Your task to perform on an android device: open app "Microsoft Outlook" (install if not already installed) and enter user name: "brand@gmail.com" and password: "persuasiveness" Image 0: 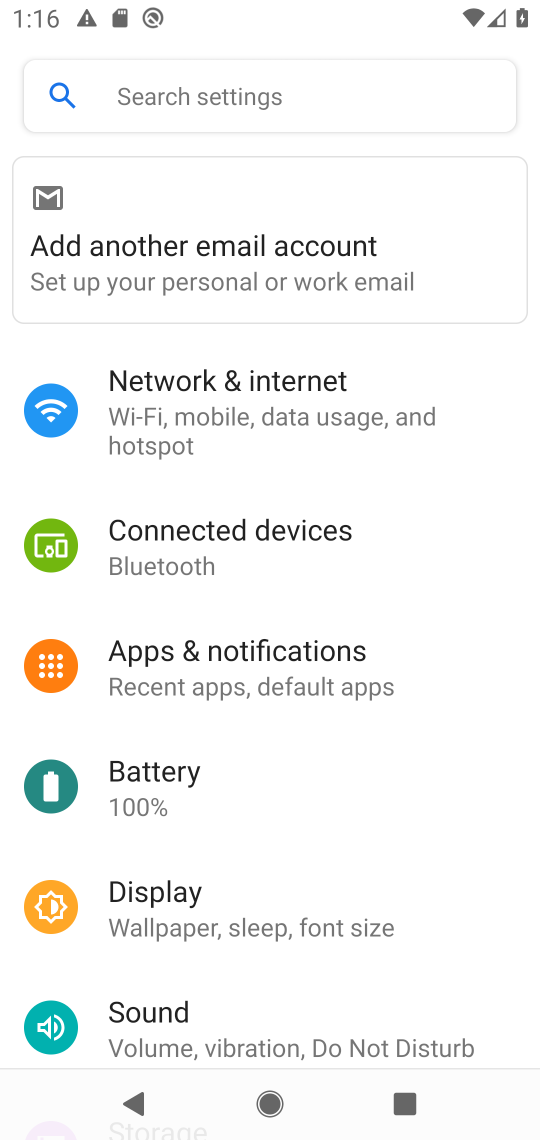
Step 0: press back button
Your task to perform on an android device: open app "Microsoft Outlook" (install if not already installed) and enter user name: "brand@gmail.com" and password: "persuasiveness" Image 1: 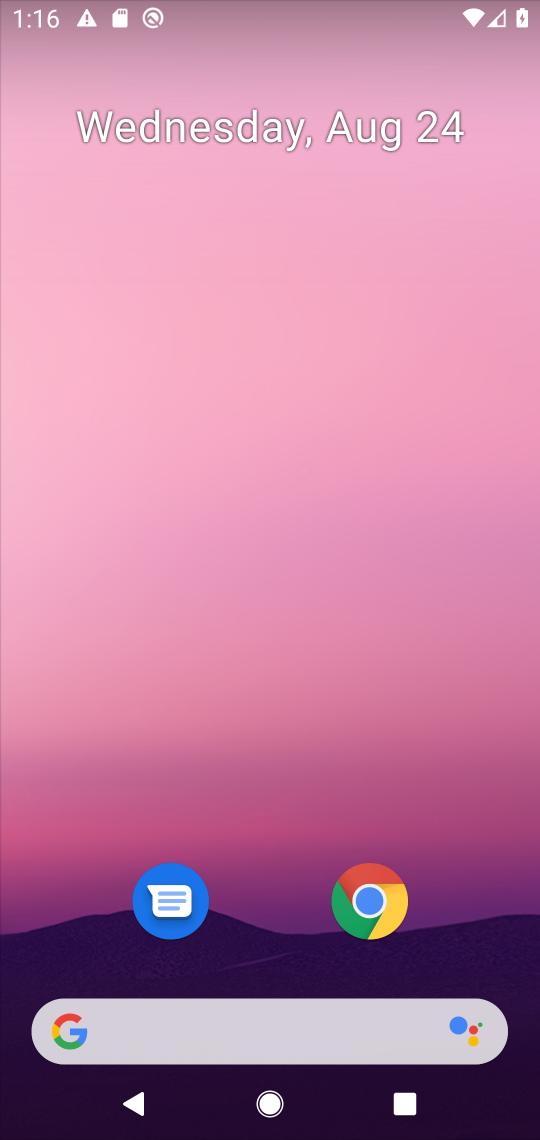
Step 1: drag from (256, 832) to (297, 57)
Your task to perform on an android device: open app "Microsoft Outlook" (install if not already installed) and enter user name: "brand@gmail.com" and password: "persuasiveness" Image 2: 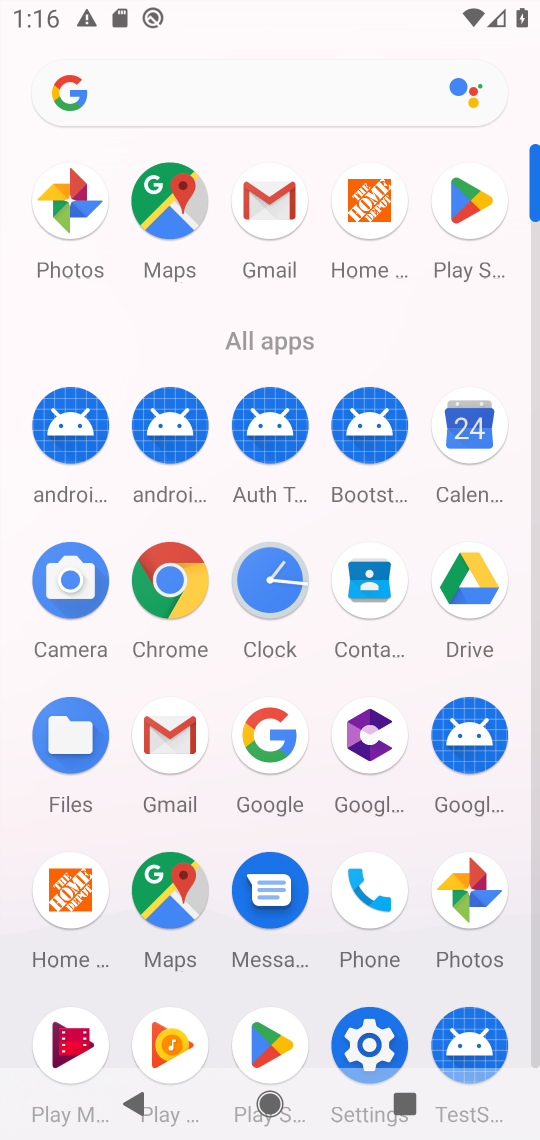
Step 2: click (465, 194)
Your task to perform on an android device: open app "Microsoft Outlook" (install if not already installed) and enter user name: "brand@gmail.com" and password: "persuasiveness" Image 3: 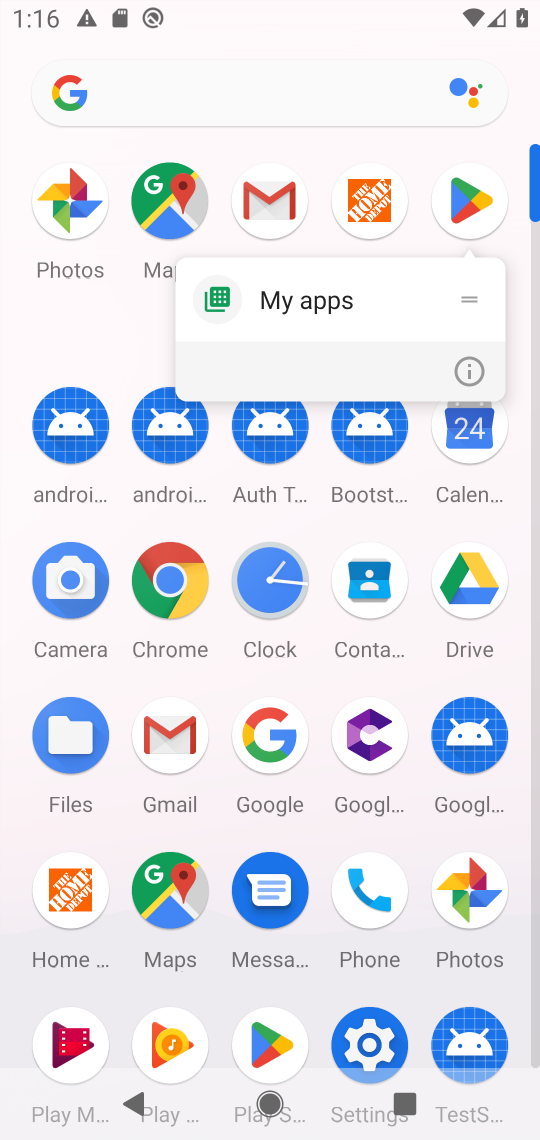
Step 3: click (450, 197)
Your task to perform on an android device: open app "Microsoft Outlook" (install if not already installed) and enter user name: "brand@gmail.com" and password: "persuasiveness" Image 4: 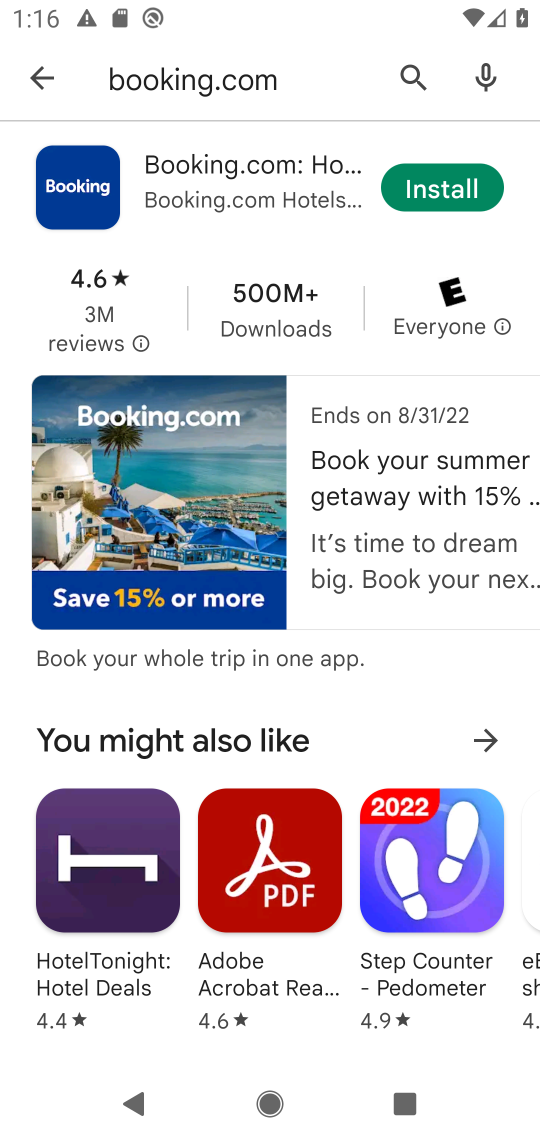
Step 4: click (411, 72)
Your task to perform on an android device: open app "Microsoft Outlook" (install if not already installed) and enter user name: "brand@gmail.com" and password: "persuasiveness" Image 5: 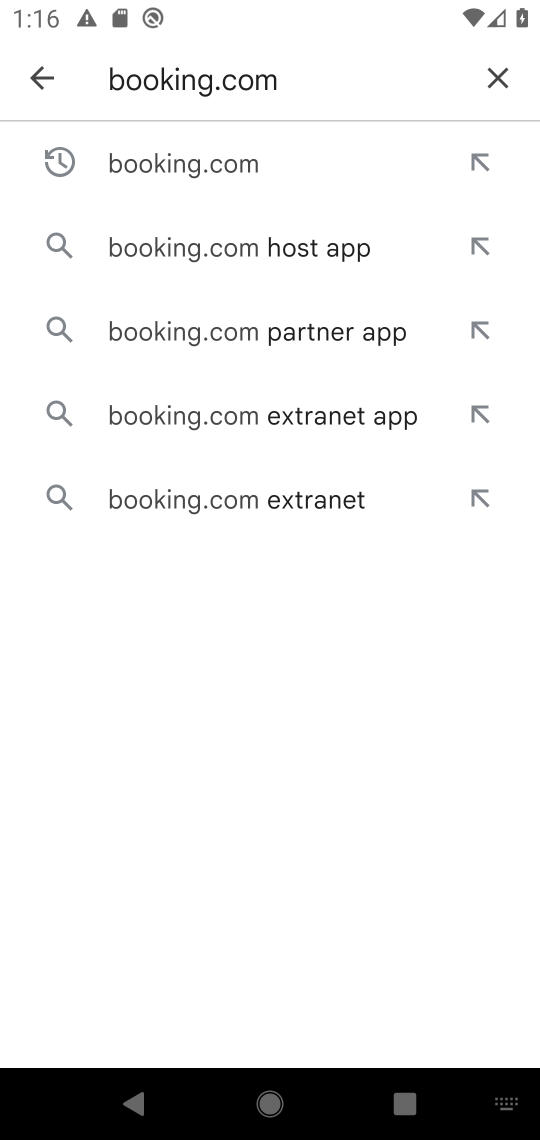
Step 5: click (495, 79)
Your task to perform on an android device: open app "Microsoft Outlook" (install if not already installed) and enter user name: "brand@gmail.com" and password: "persuasiveness" Image 6: 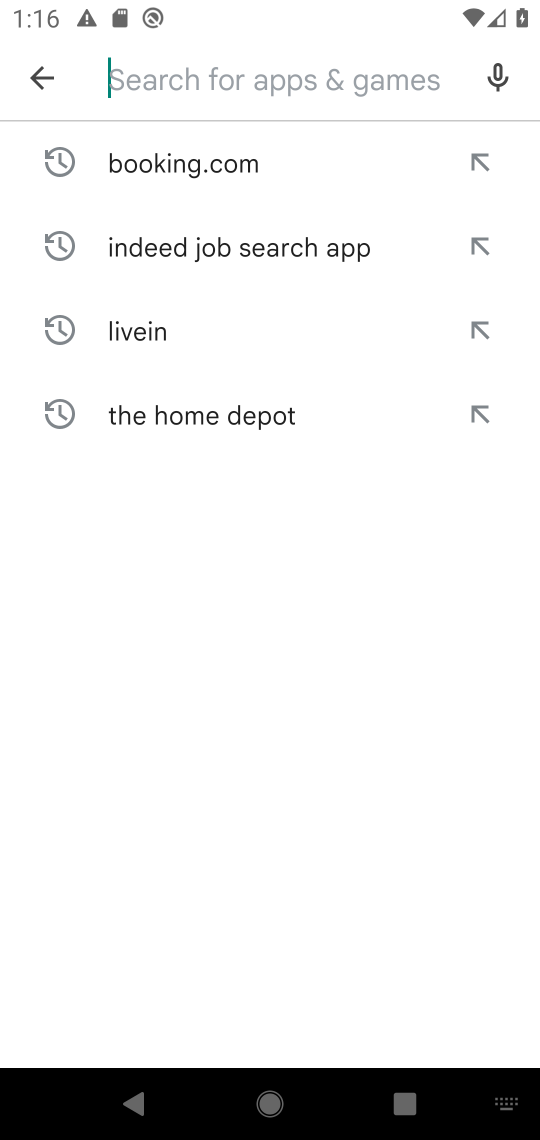
Step 6: click (200, 79)
Your task to perform on an android device: open app "Microsoft Outlook" (install if not already installed) and enter user name: "brand@gmail.com" and password: "persuasiveness" Image 7: 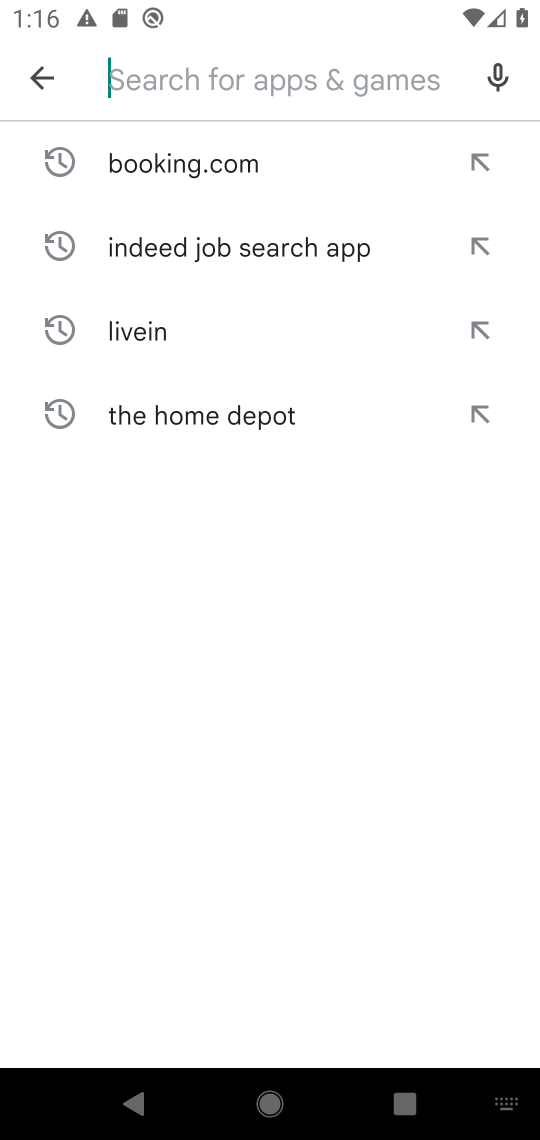
Step 7: type "Microsoft Outlook"
Your task to perform on an android device: open app "Microsoft Outlook" (install if not already installed) and enter user name: "brand@gmail.com" and password: "persuasiveness" Image 8: 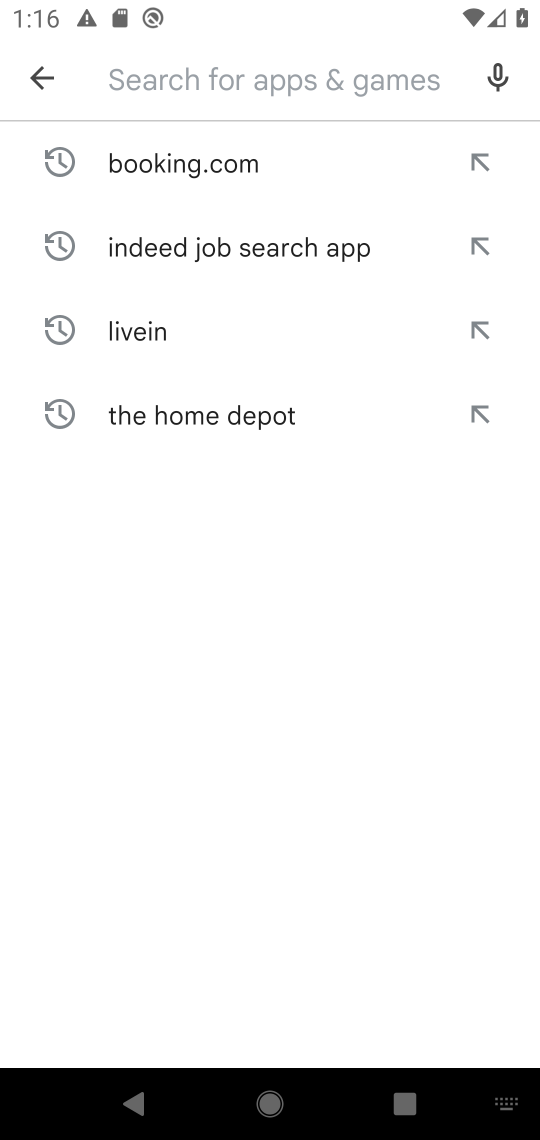
Step 8: click (357, 769)
Your task to perform on an android device: open app "Microsoft Outlook" (install if not already installed) and enter user name: "brand@gmail.com" and password: "persuasiveness" Image 9: 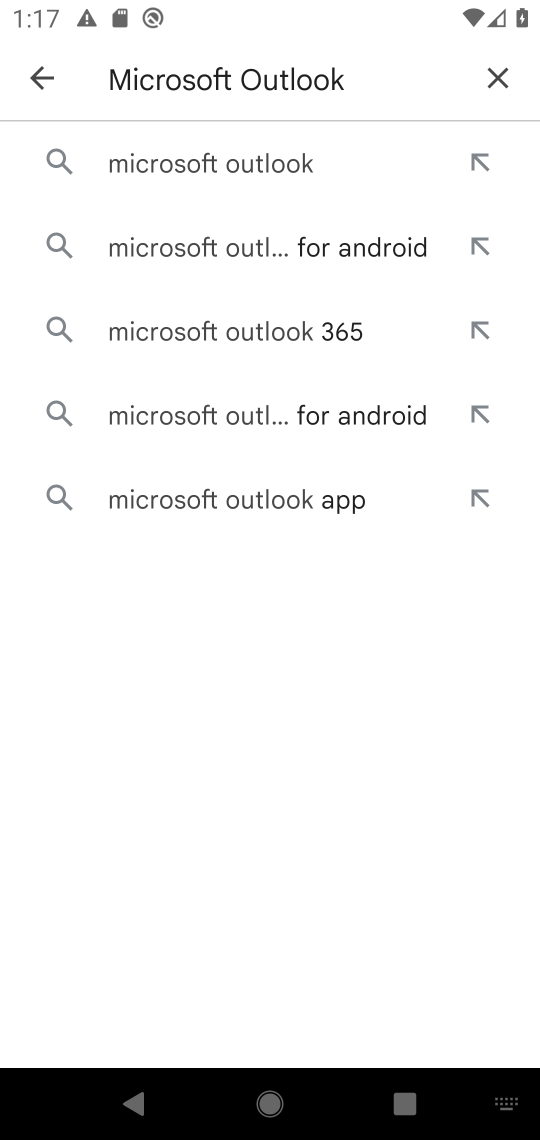
Step 9: click (275, 165)
Your task to perform on an android device: open app "Microsoft Outlook" (install if not already installed) and enter user name: "brand@gmail.com" and password: "persuasiveness" Image 10: 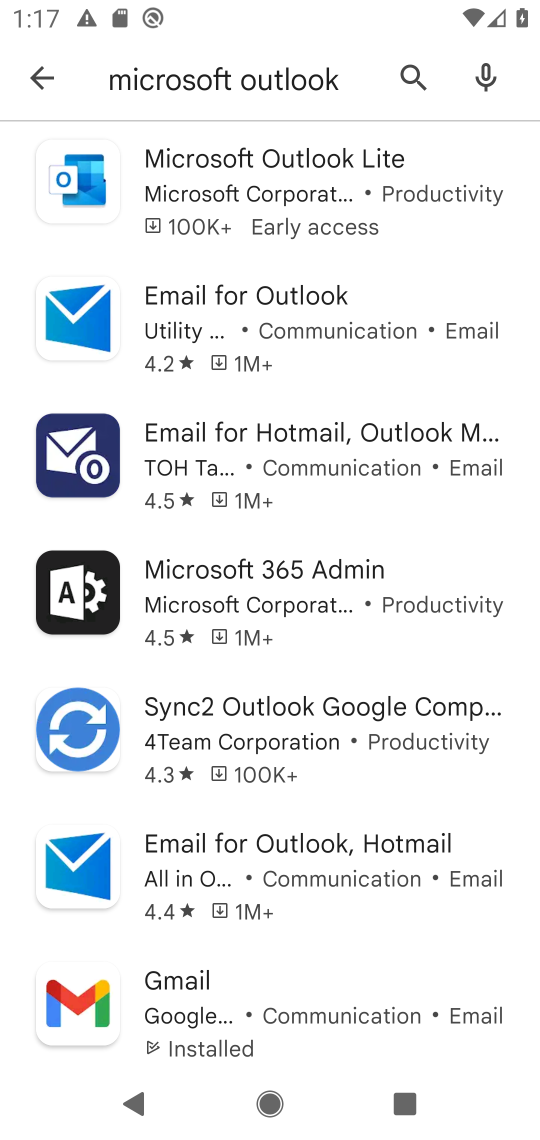
Step 10: task complete